Your task to perform on an android device: clear history in the chrome app Image 0: 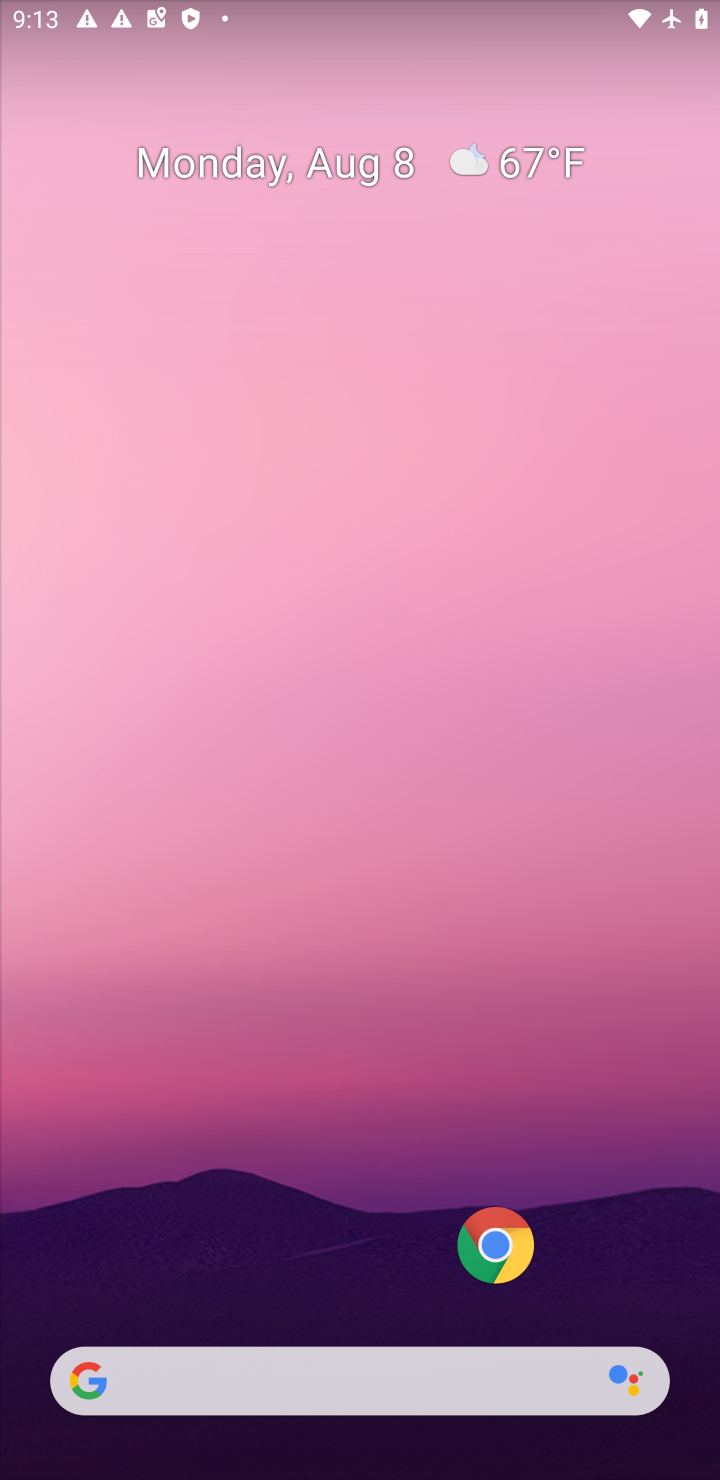
Step 0: click (468, 1231)
Your task to perform on an android device: clear history in the chrome app Image 1: 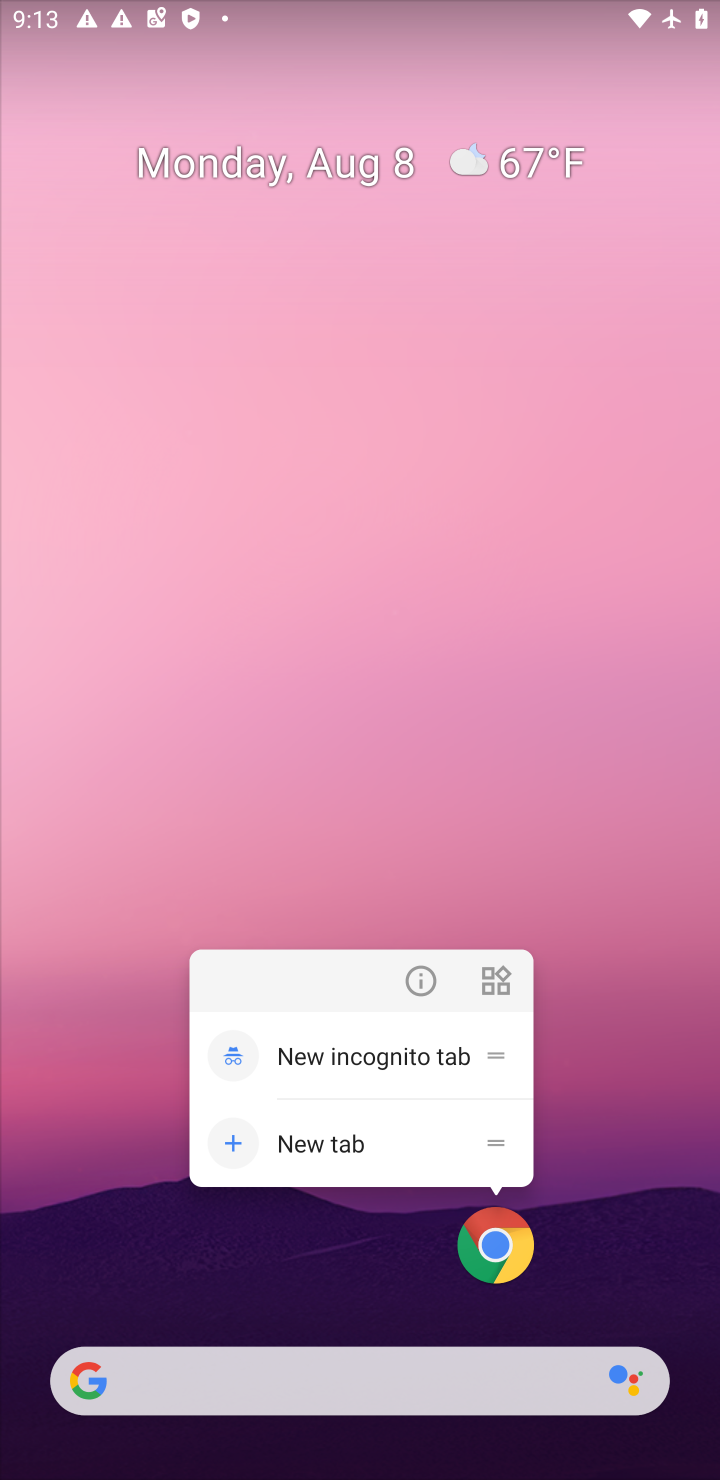
Step 1: click (506, 1246)
Your task to perform on an android device: clear history in the chrome app Image 2: 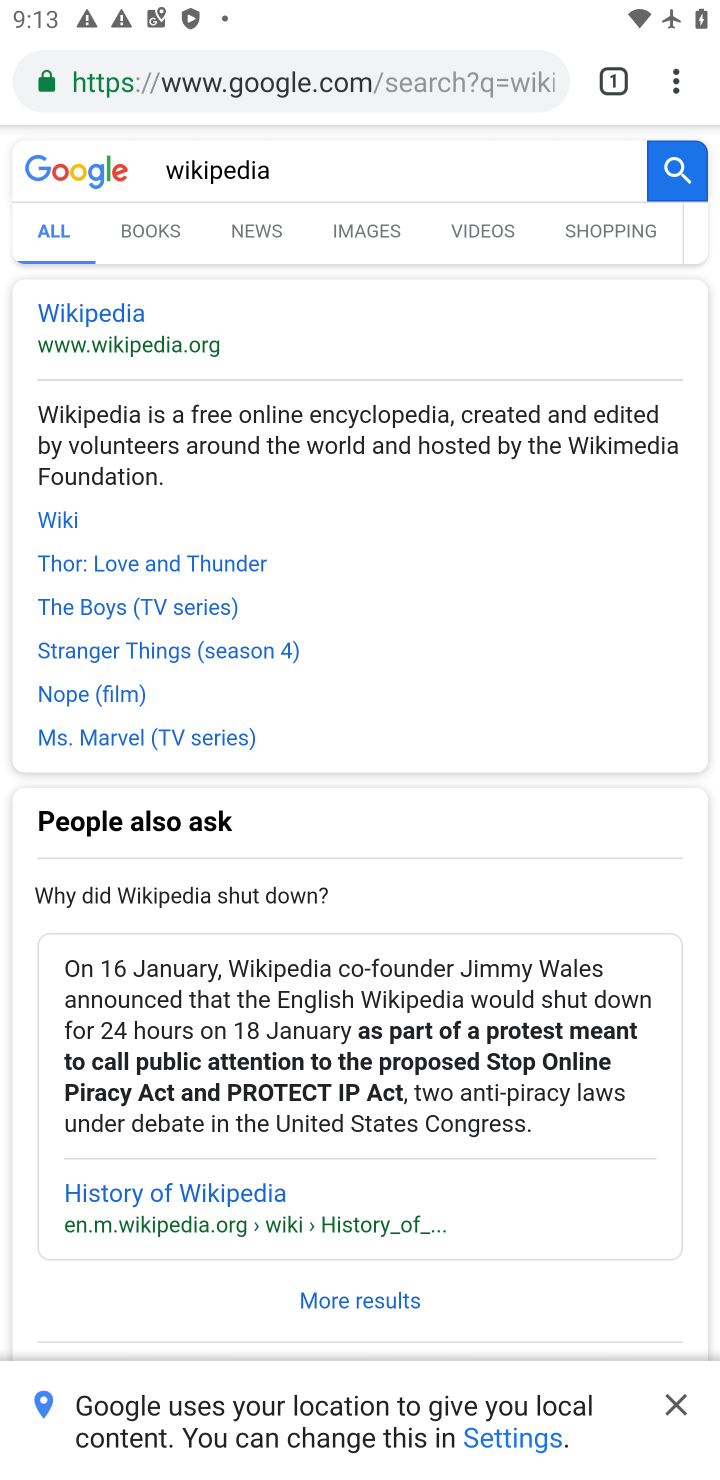
Step 2: click (673, 78)
Your task to perform on an android device: clear history in the chrome app Image 3: 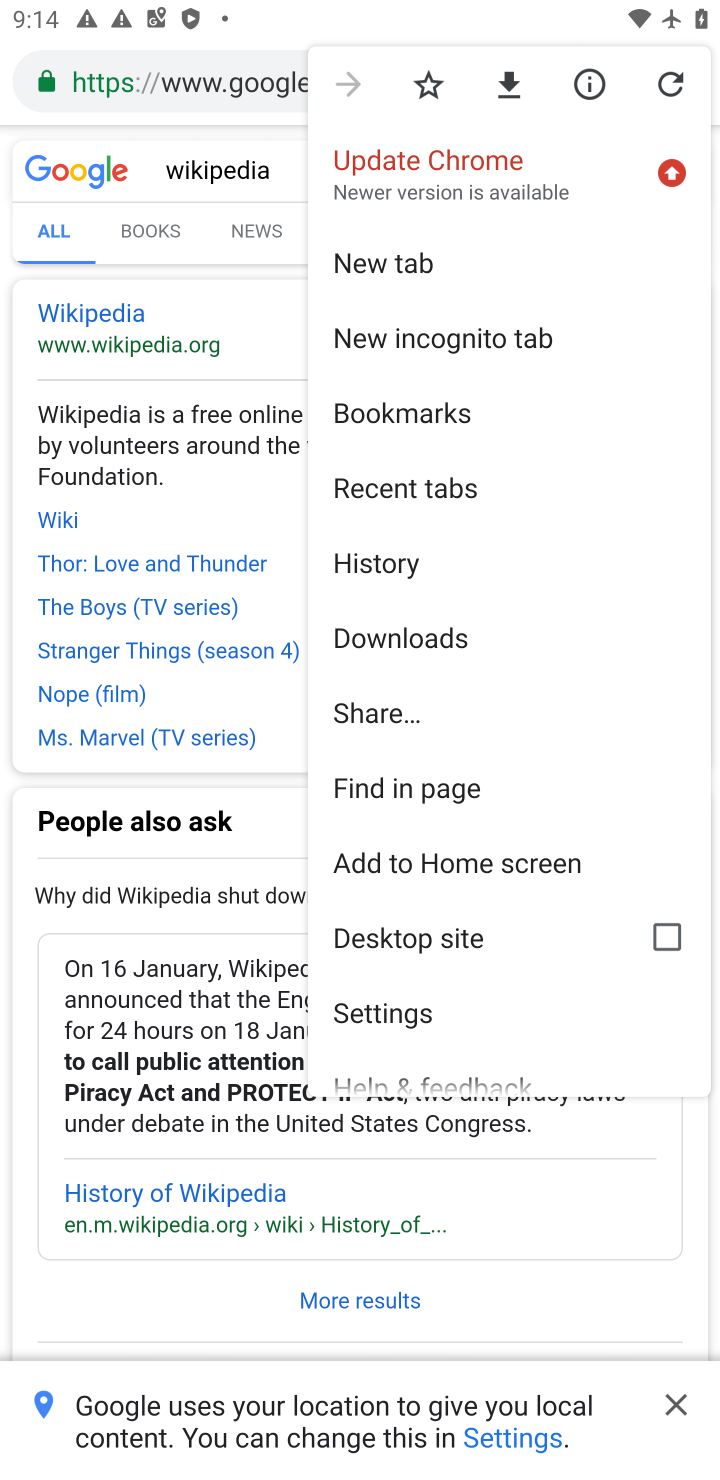
Step 3: click (389, 572)
Your task to perform on an android device: clear history in the chrome app Image 4: 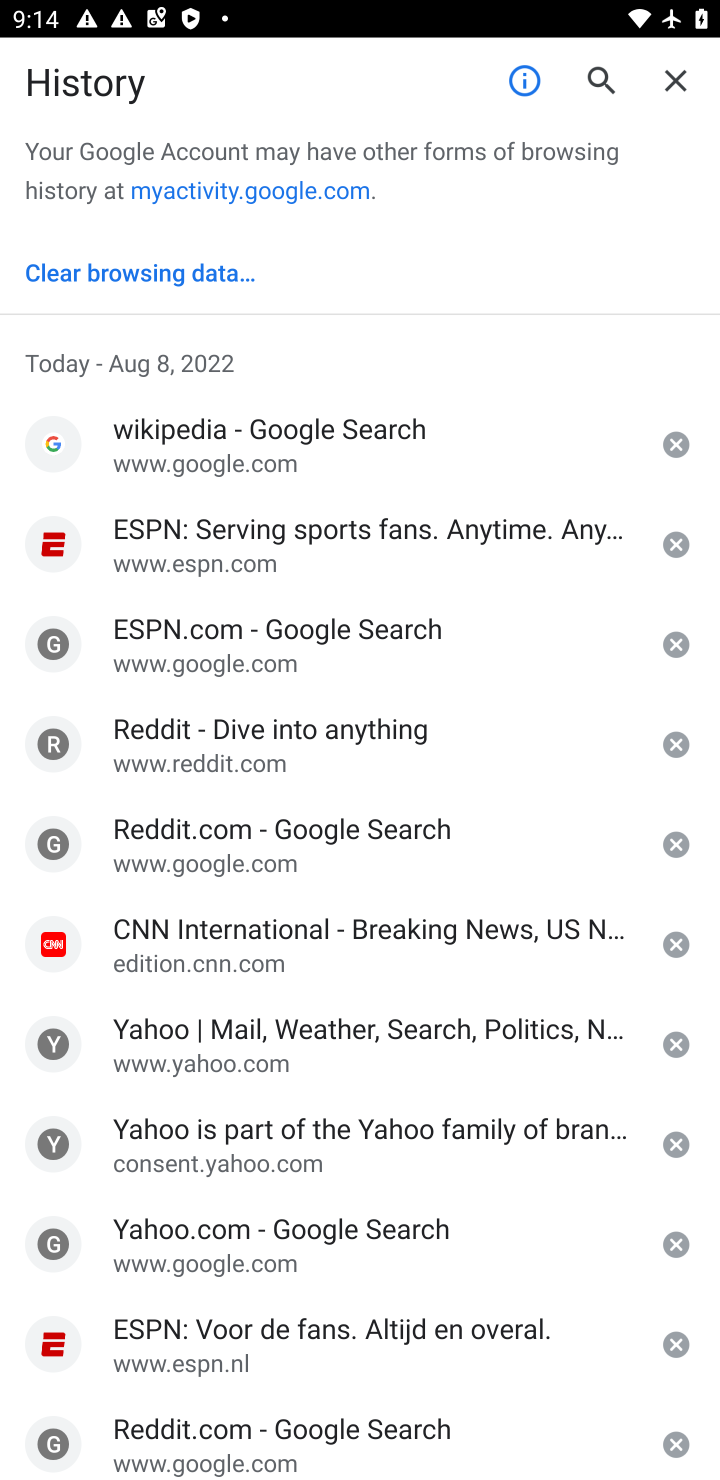
Step 4: click (197, 279)
Your task to perform on an android device: clear history in the chrome app Image 5: 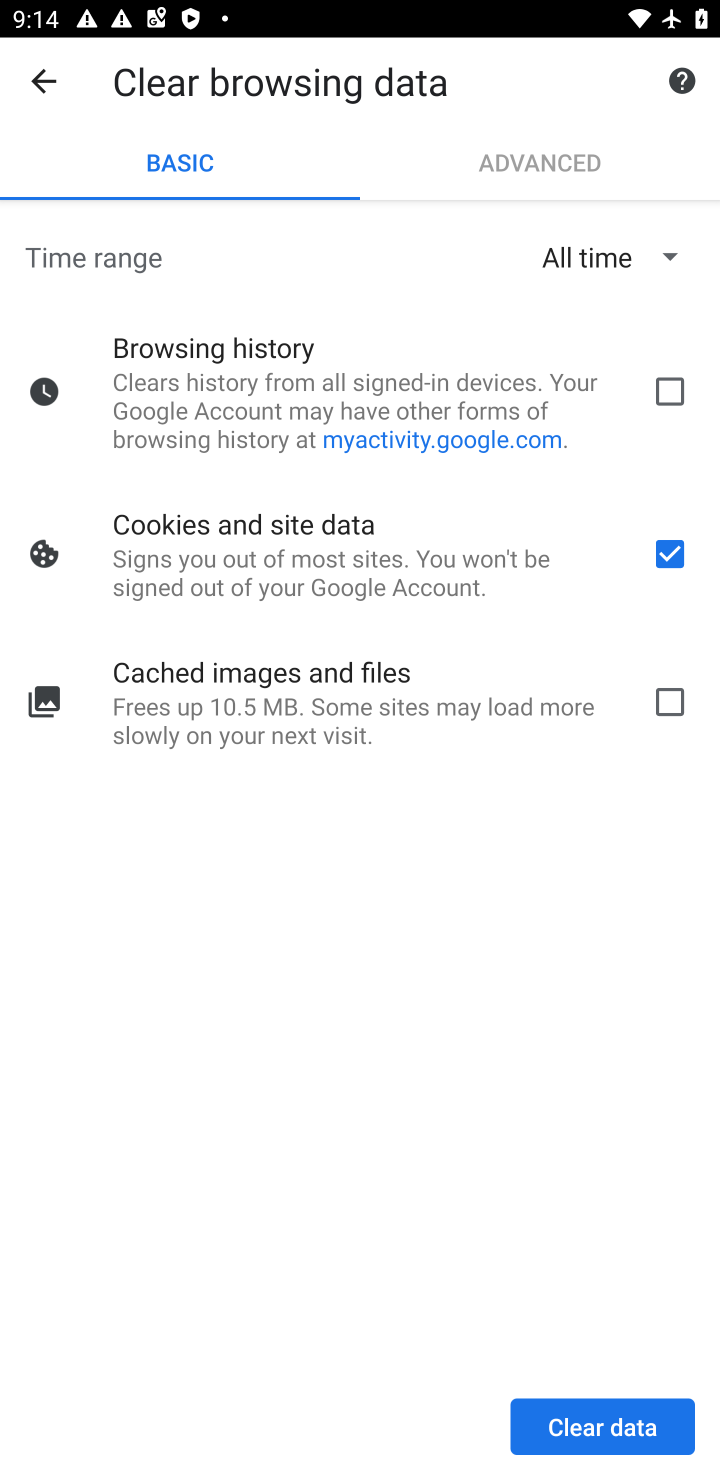
Step 5: click (659, 395)
Your task to perform on an android device: clear history in the chrome app Image 6: 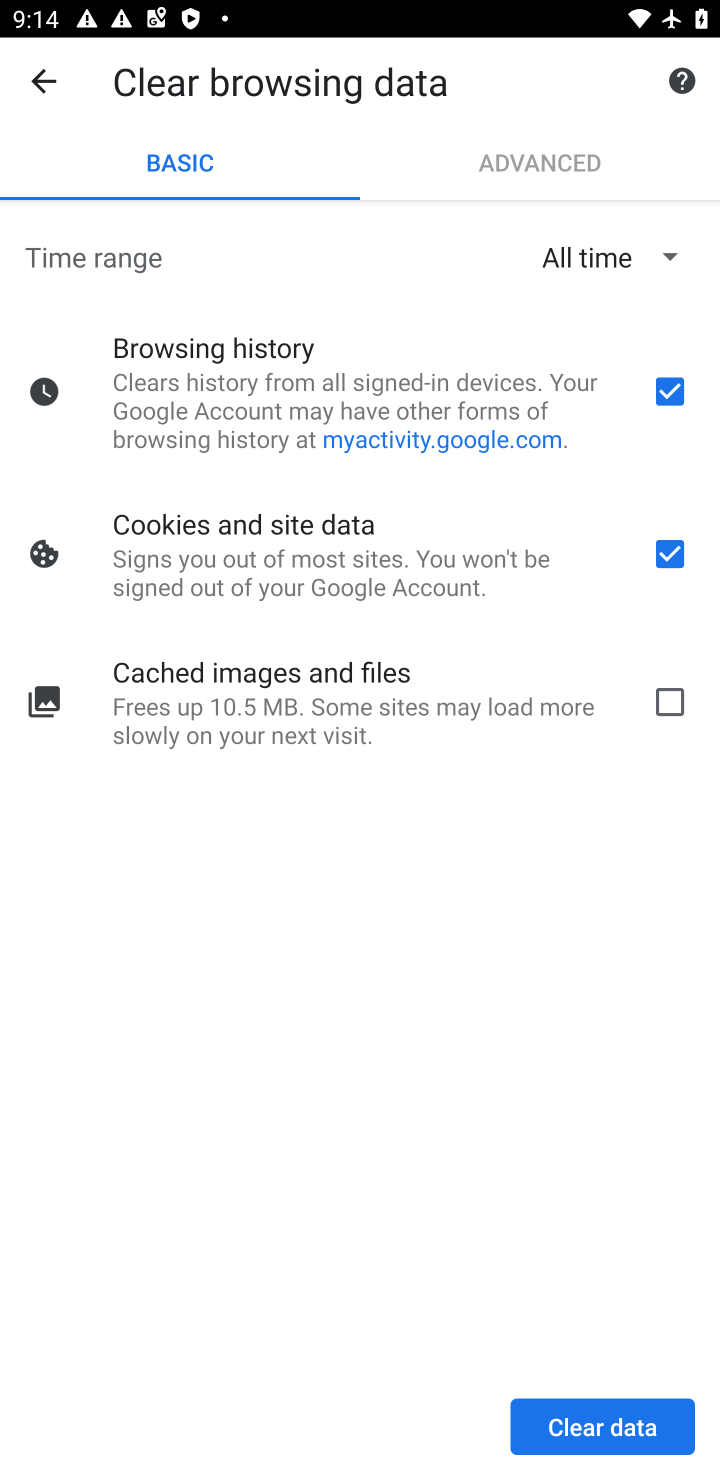
Step 6: click (644, 703)
Your task to perform on an android device: clear history in the chrome app Image 7: 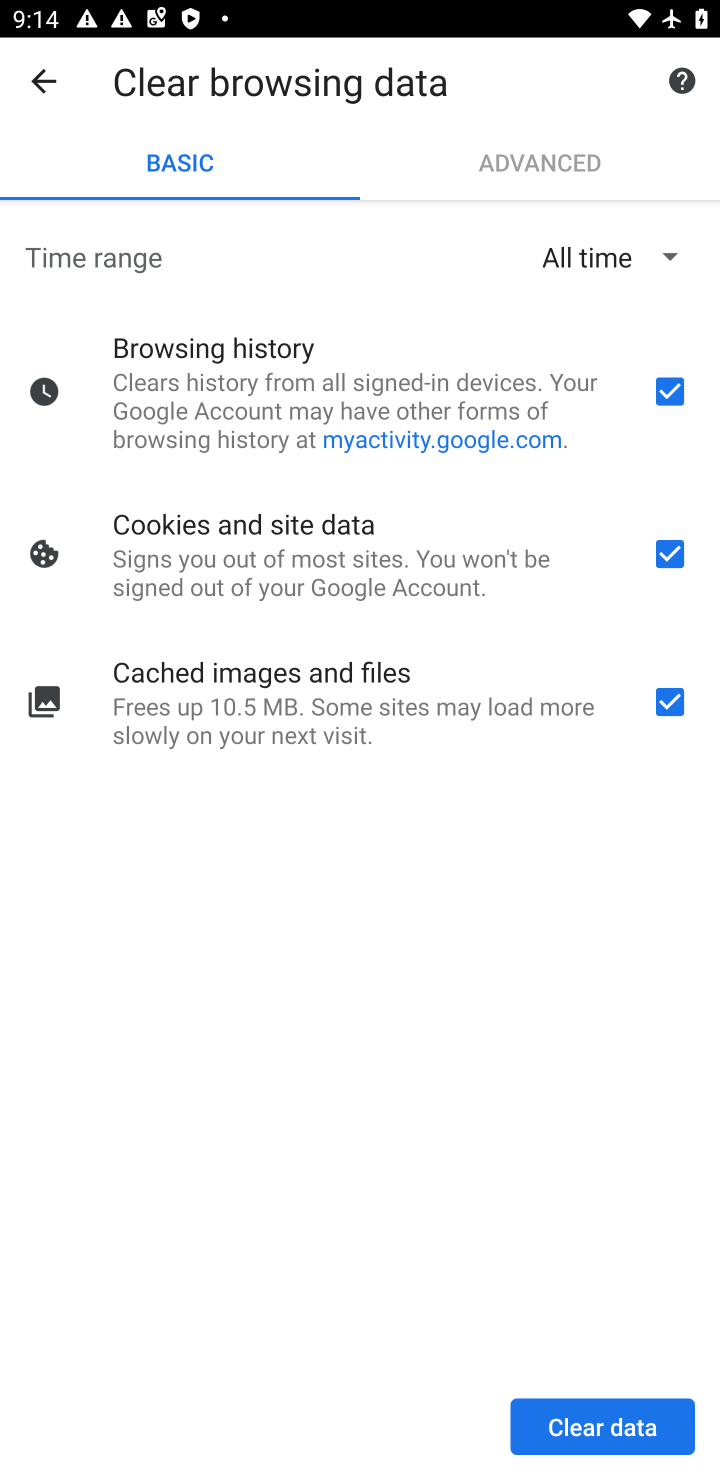
Step 7: click (616, 1424)
Your task to perform on an android device: clear history in the chrome app Image 8: 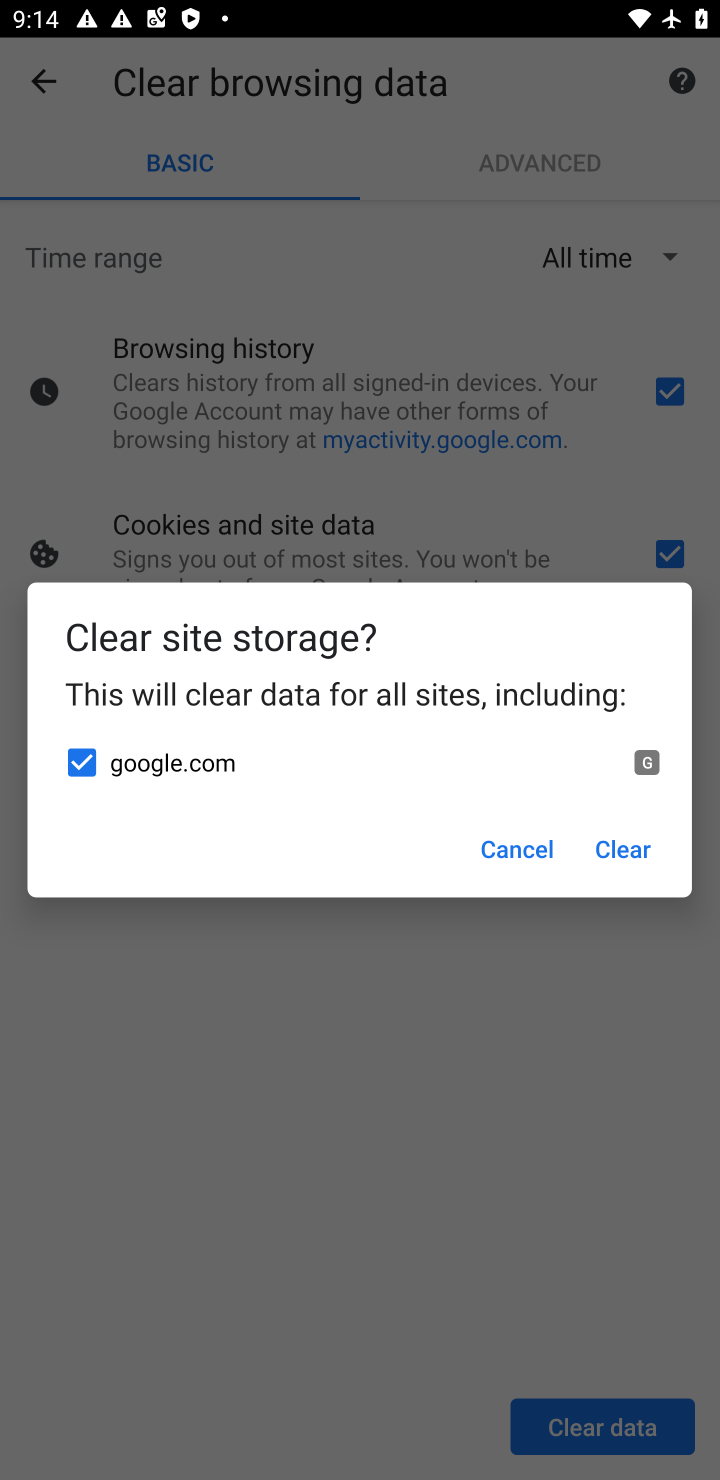
Step 8: click (609, 855)
Your task to perform on an android device: clear history in the chrome app Image 9: 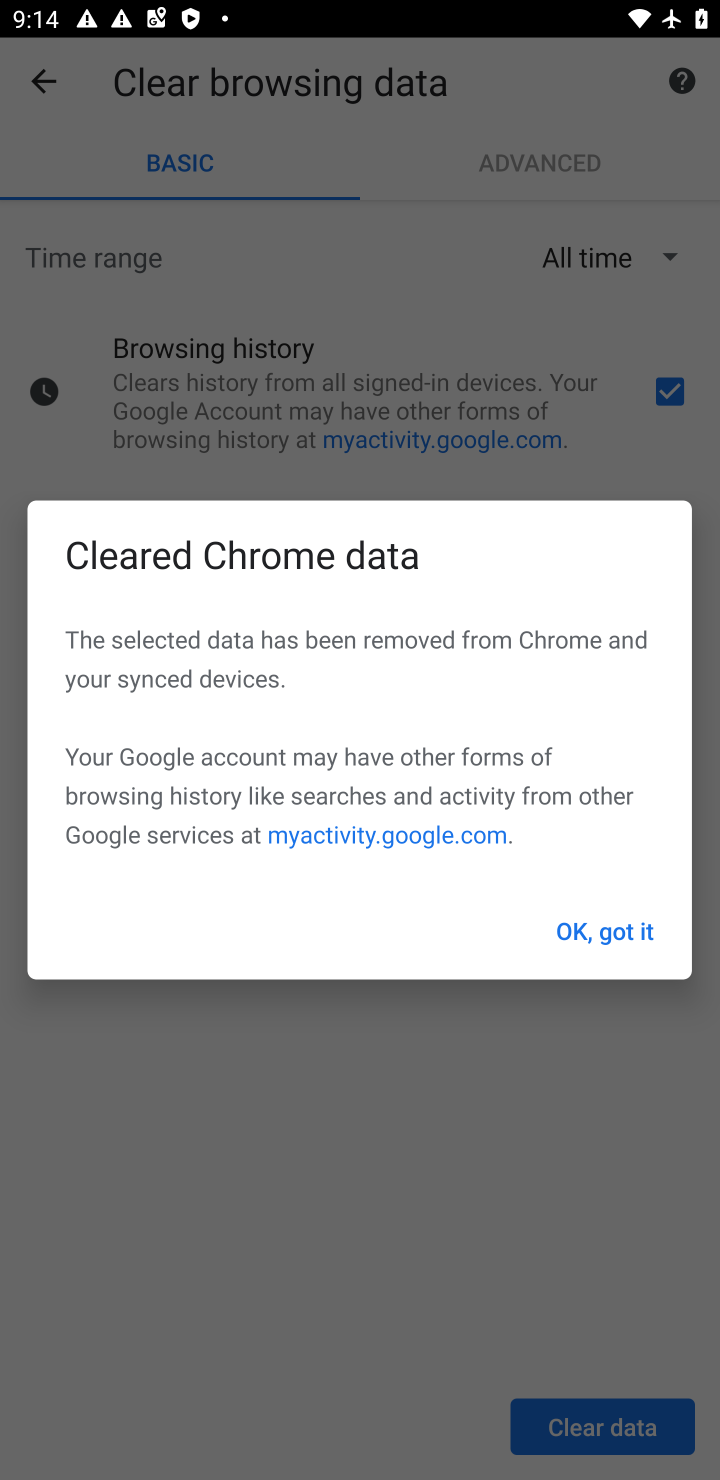
Step 9: click (555, 943)
Your task to perform on an android device: clear history in the chrome app Image 10: 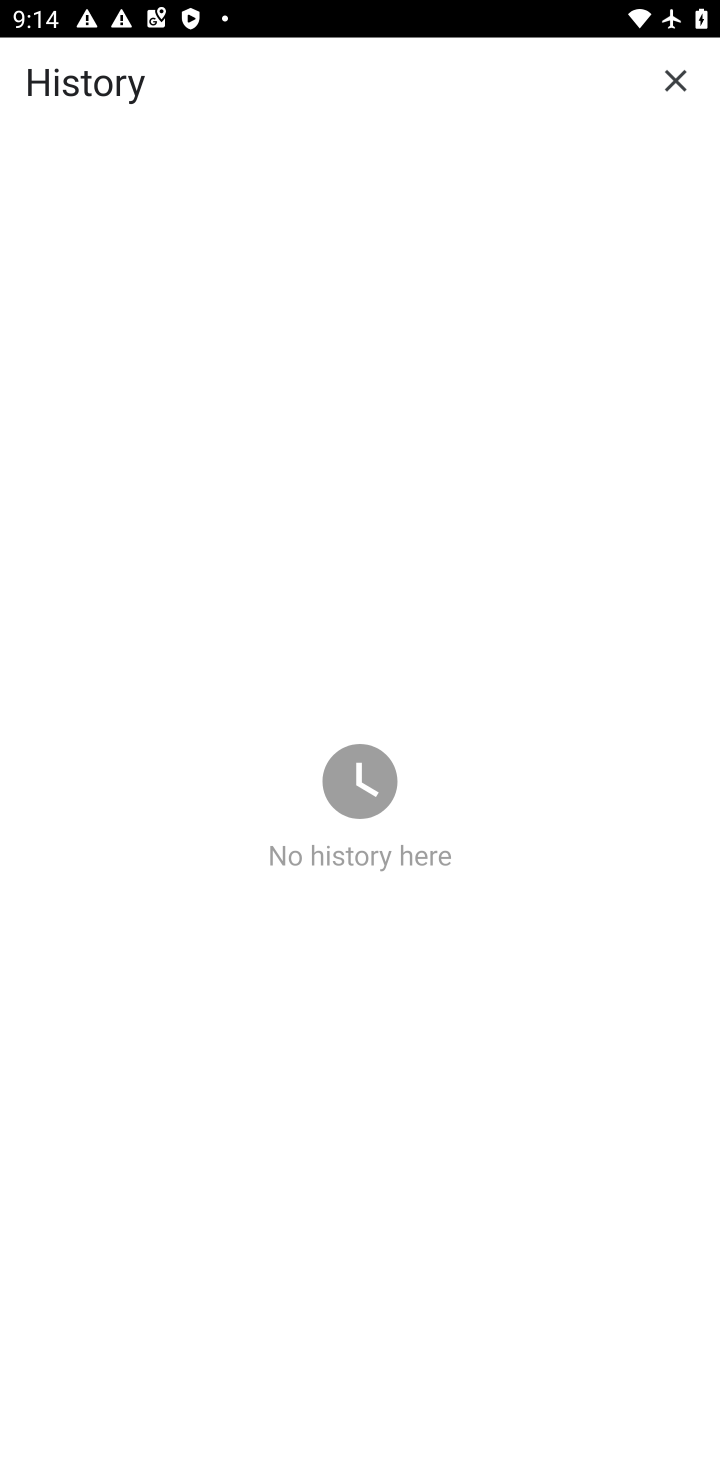
Step 10: task complete